Your task to perform on an android device: Open Reddit.com Image 0: 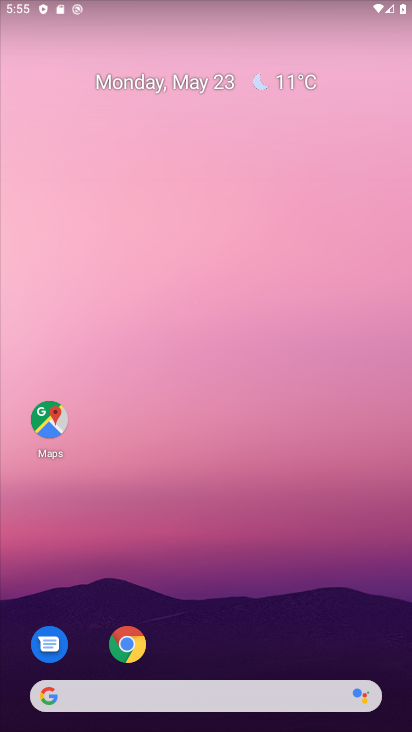
Step 0: drag from (227, 656) to (251, 309)
Your task to perform on an android device: Open Reddit.com Image 1: 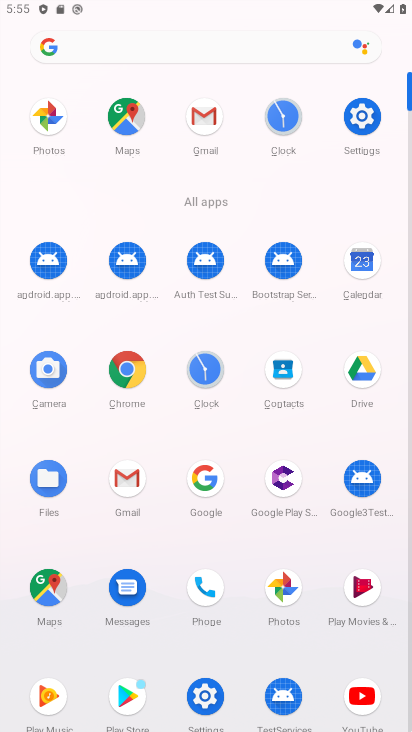
Step 1: click (134, 387)
Your task to perform on an android device: Open Reddit.com Image 2: 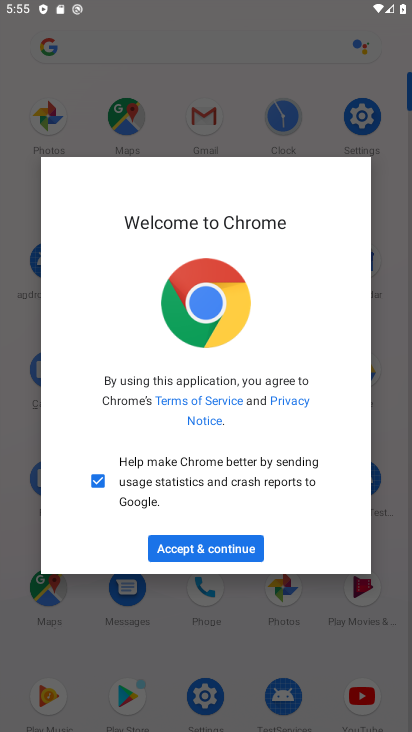
Step 2: click (198, 564)
Your task to perform on an android device: Open Reddit.com Image 3: 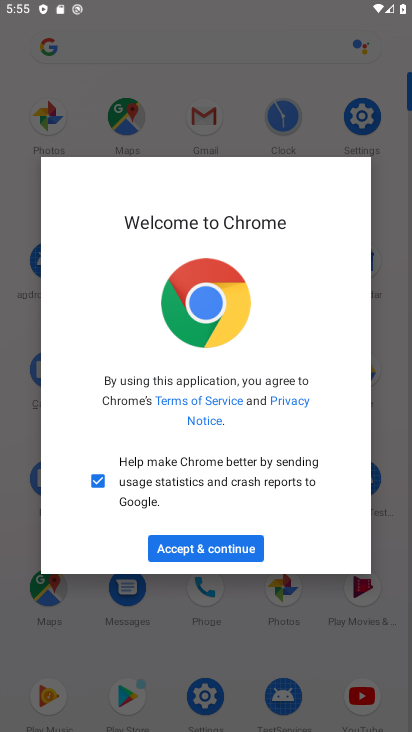
Step 3: click (207, 548)
Your task to perform on an android device: Open Reddit.com Image 4: 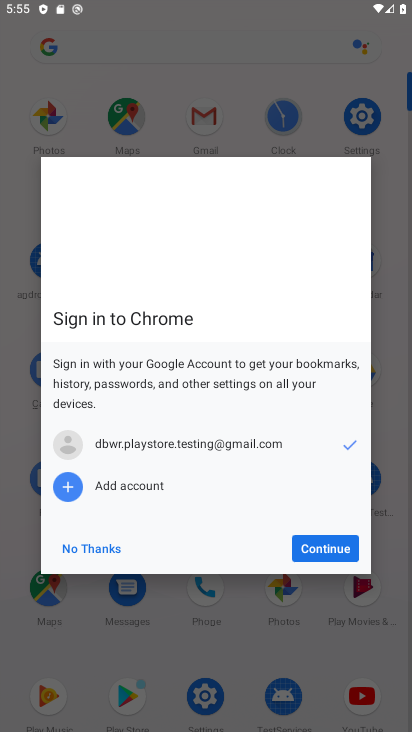
Step 4: click (318, 553)
Your task to perform on an android device: Open Reddit.com Image 5: 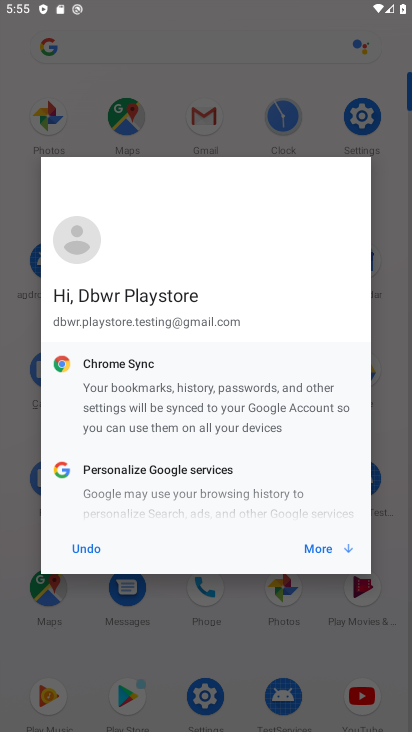
Step 5: click (330, 553)
Your task to perform on an android device: Open Reddit.com Image 6: 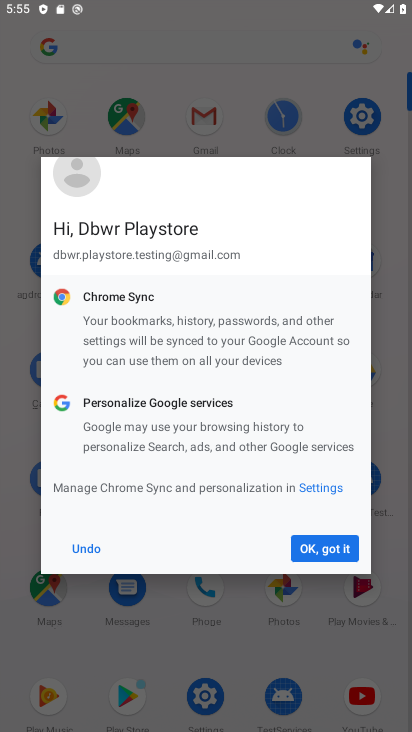
Step 6: click (330, 553)
Your task to perform on an android device: Open Reddit.com Image 7: 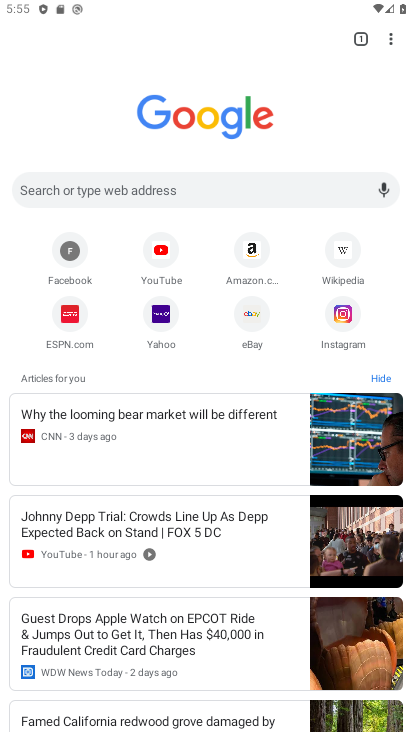
Step 7: click (166, 188)
Your task to perform on an android device: Open Reddit.com Image 8: 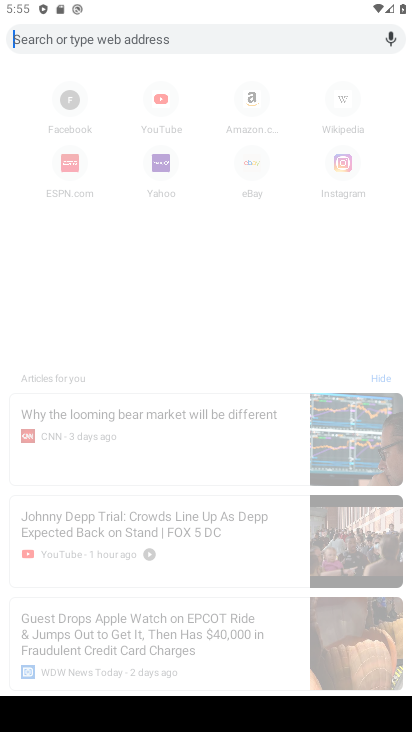
Step 8: type "www.reddit.com"
Your task to perform on an android device: Open Reddit.com Image 9: 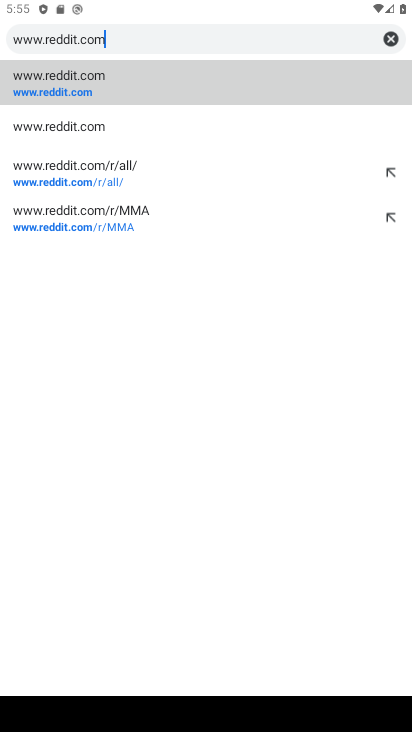
Step 9: click (70, 97)
Your task to perform on an android device: Open Reddit.com Image 10: 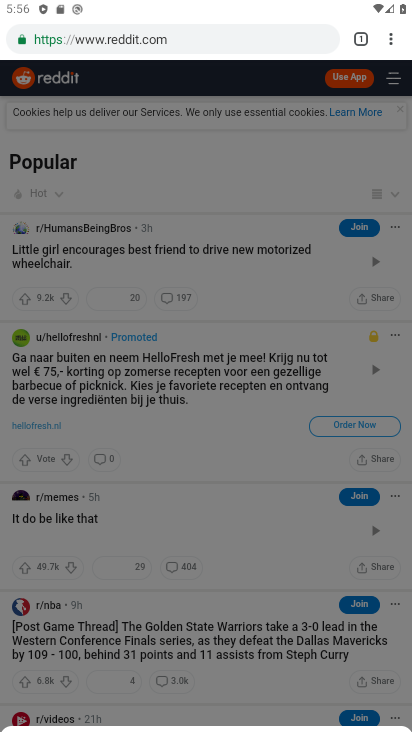
Step 10: task complete